Your task to perform on an android device: Open battery settings Image 0: 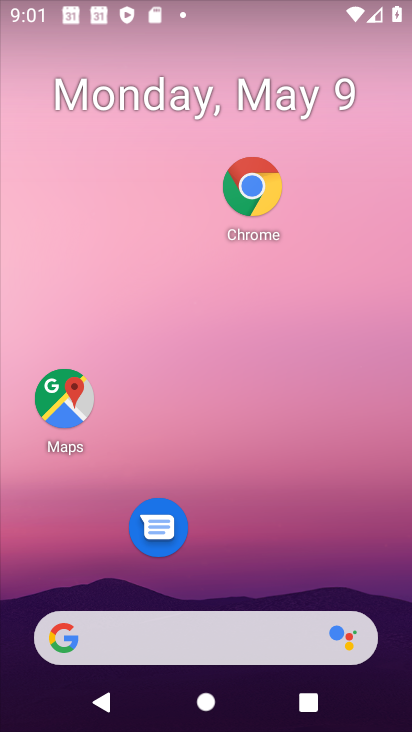
Step 0: drag from (220, 578) to (218, 127)
Your task to perform on an android device: Open battery settings Image 1: 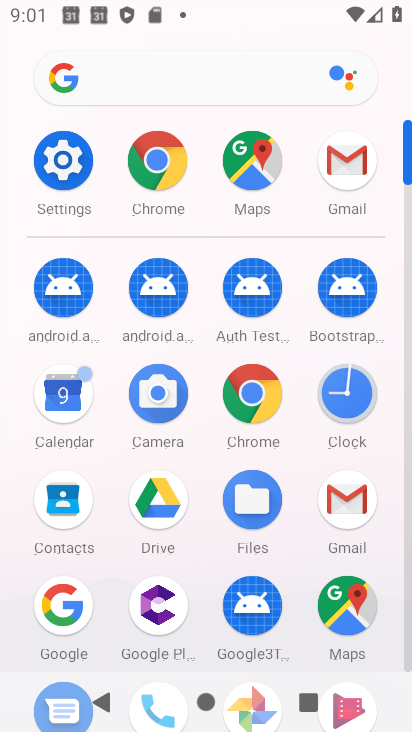
Step 1: click (54, 154)
Your task to perform on an android device: Open battery settings Image 2: 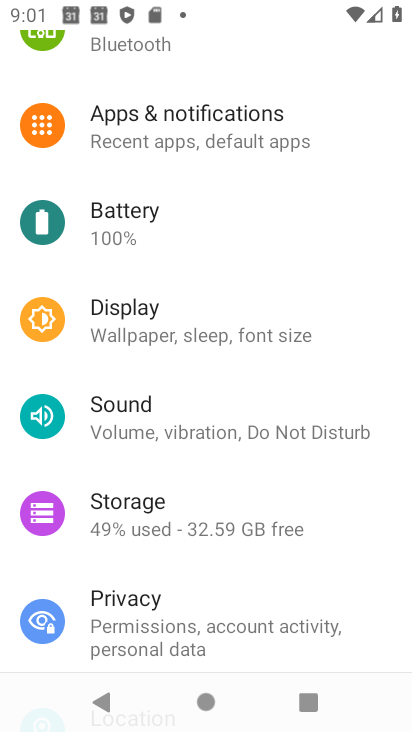
Step 2: click (151, 224)
Your task to perform on an android device: Open battery settings Image 3: 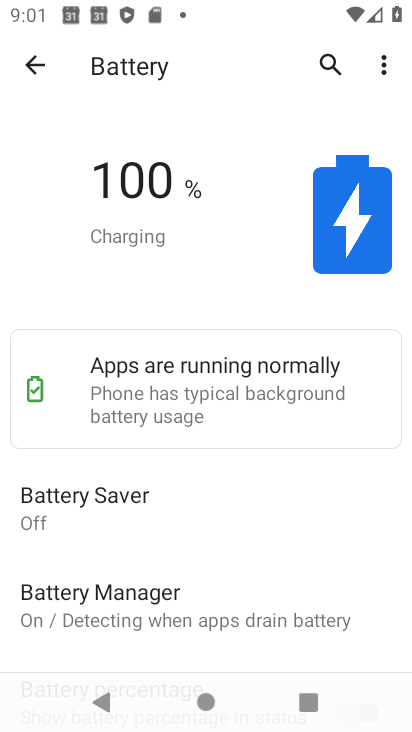
Step 3: task complete